Your task to perform on an android device: change notifications settings Image 0: 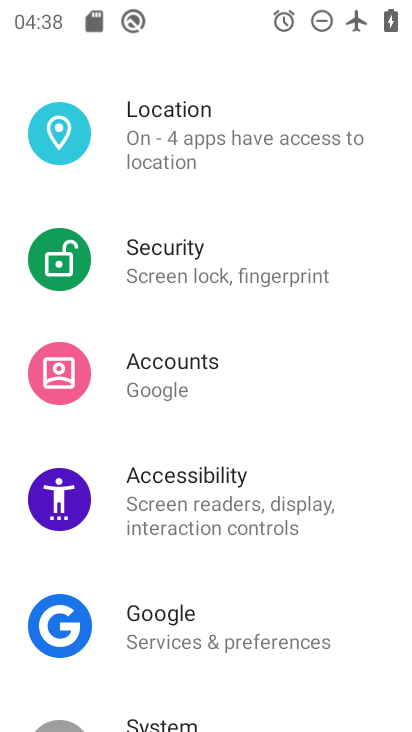
Step 0: press home button
Your task to perform on an android device: change notifications settings Image 1: 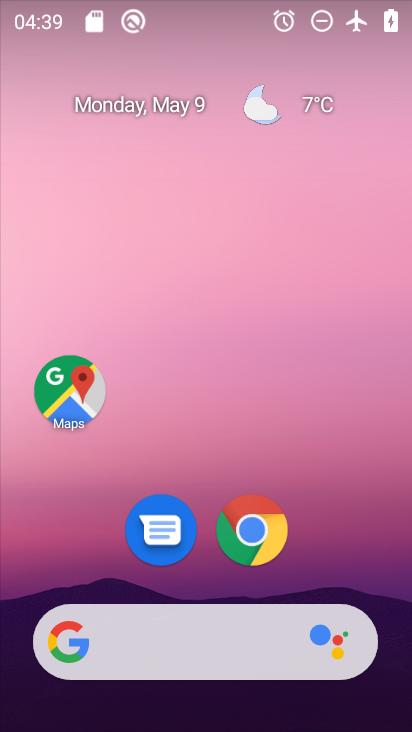
Step 1: drag from (202, 567) to (253, 116)
Your task to perform on an android device: change notifications settings Image 2: 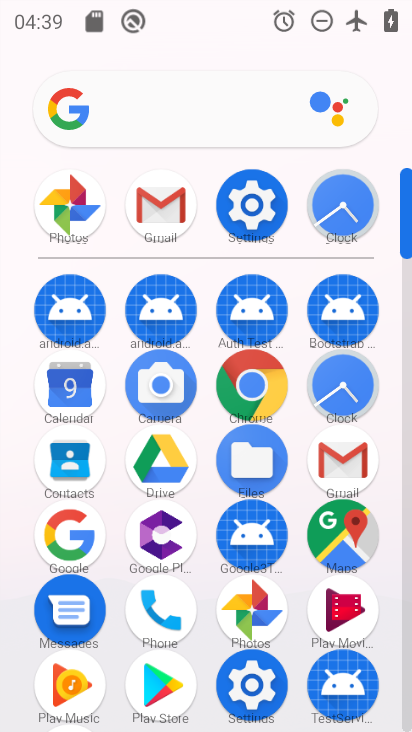
Step 2: click (247, 196)
Your task to perform on an android device: change notifications settings Image 3: 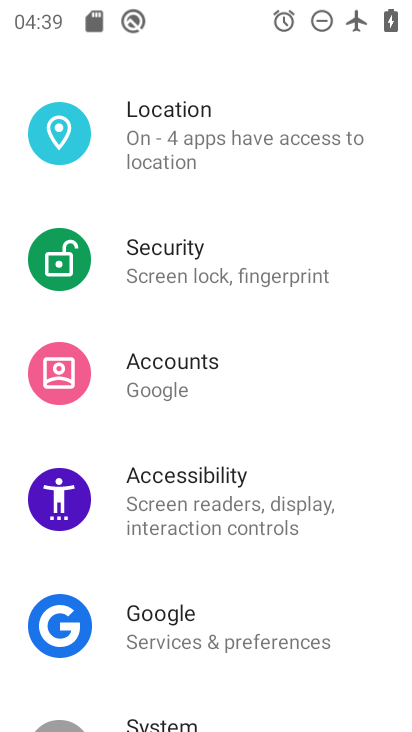
Step 3: drag from (206, 108) to (214, 684)
Your task to perform on an android device: change notifications settings Image 4: 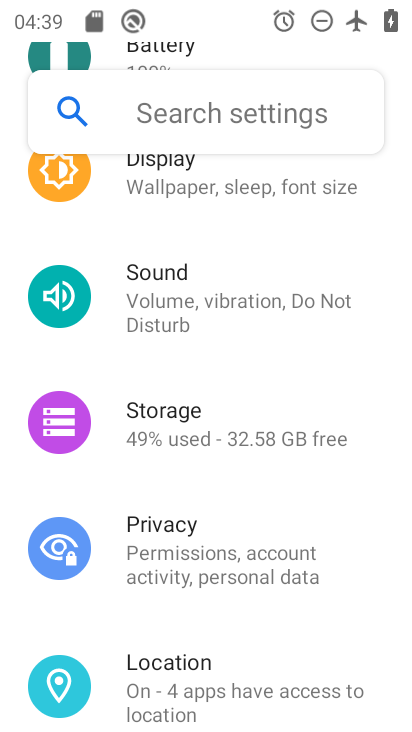
Step 4: drag from (205, 183) to (142, 731)
Your task to perform on an android device: change notifications settings Image 5: 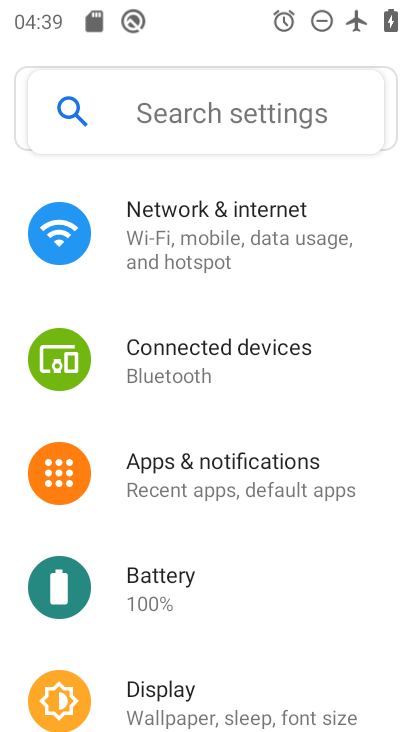
Step 5: click (200, 455)
Your task to perform on an android device: change notifications settings Image 6: 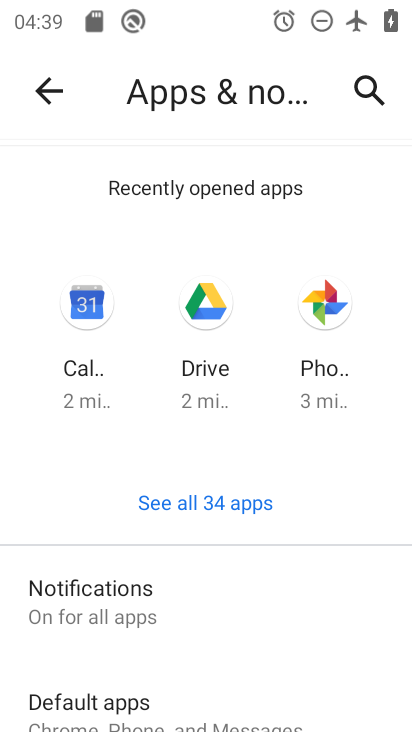
Step 6: click (178, 594)
Your task to perform on an android device: change notifications settings Image 7: 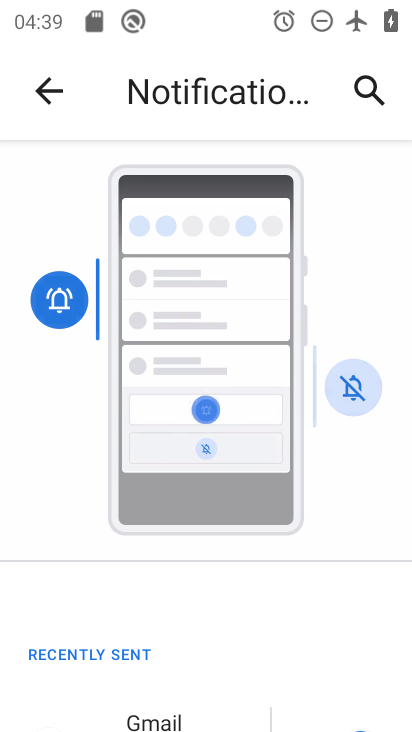
Step 7: drag from (202, 643) to (225, 482)
Your task to perform on an android device: change notifications settings Image 8: 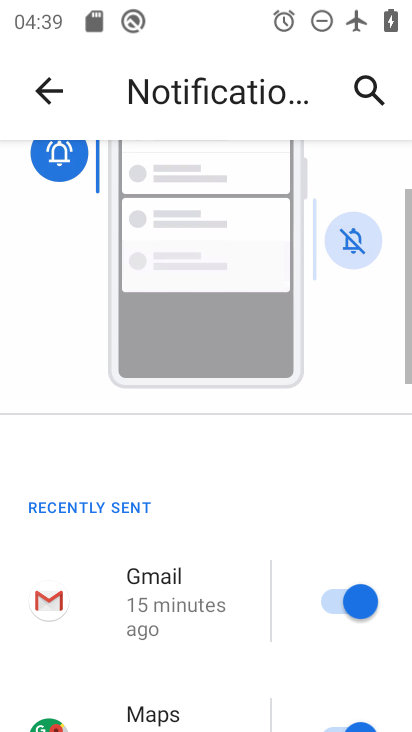
Step 8: drag from (255, 285) to (271, 189)
Your task to perform on an android device: change notifications settings Image 9: 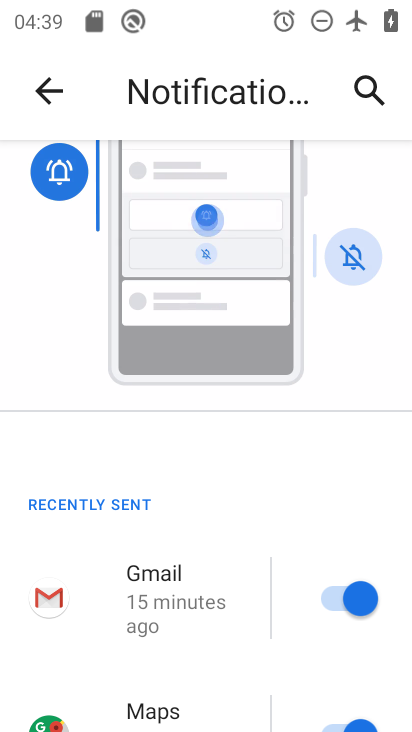
Step 9: drag from (223, 633) to (230, 393)
Your task to perform on an android device: change notifications settings Image 10: 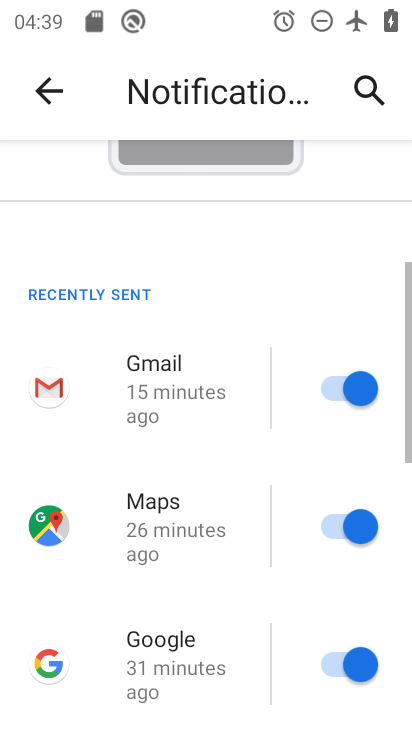
Step 10: click (237, 305)
Your task to perform on an android device: change notifications settings Image 11: 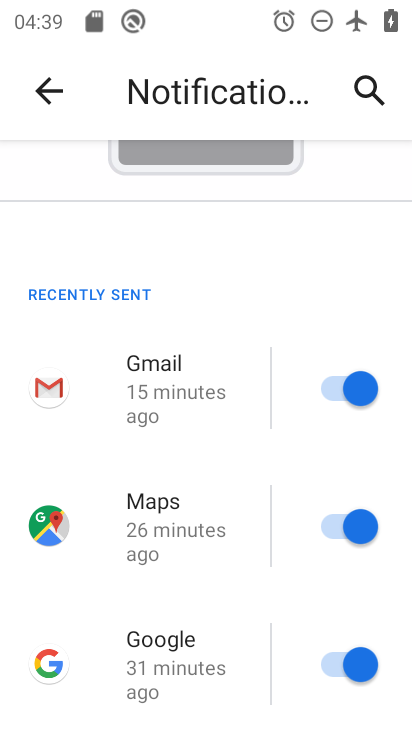
Step 11: drag from (234, 447) to (234, 276)
Your task to perform on an android device: change notifications settings Image 12: 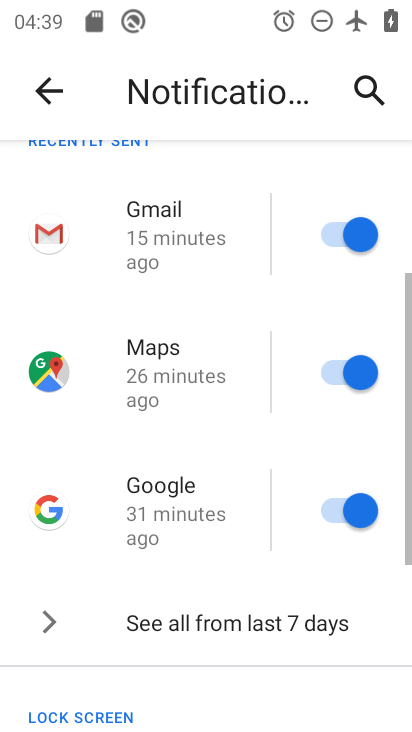
Step 12: click (236, 249)
Your task to perform on an android device: change notifications settings Image 13: 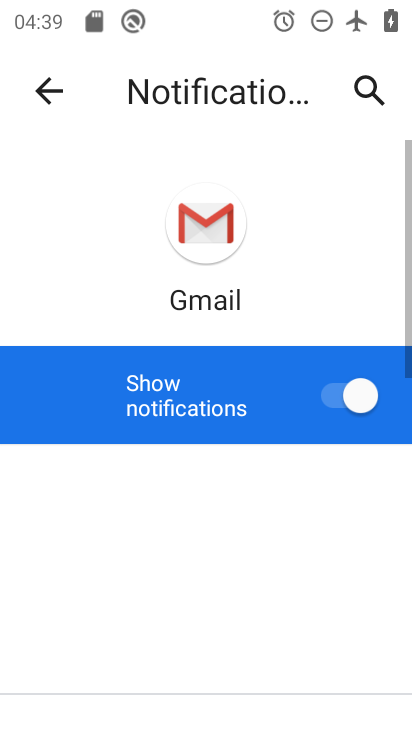
Step 13: click (343, 236)
Your task to perform on an android device: change notifications settings Image 14: 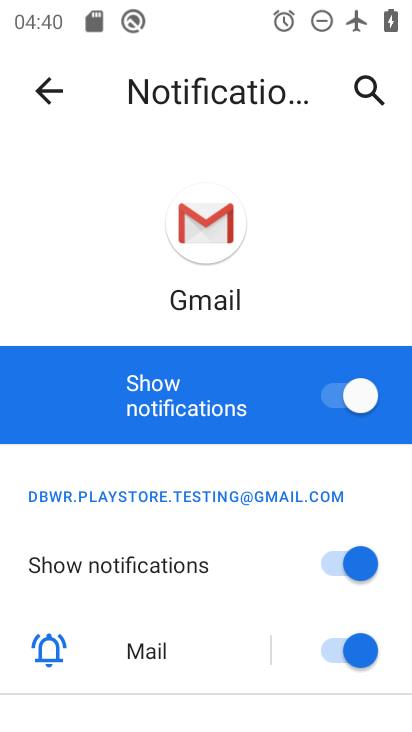
Step 14: click (336, 564)
Your task to perform on an android device: change notifications settings Image 15: 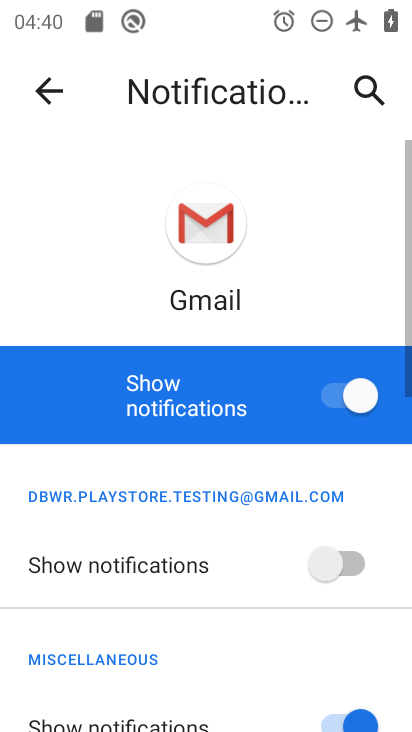
Step 15: task complete